Your task to perform on an android device: check battery use Image 0: 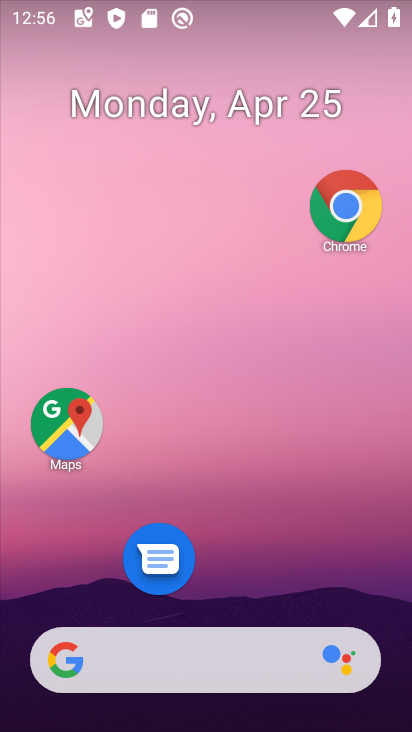
Step 0: drag from (253, 496) to (276, 93)
Your task to perform on an android device: check battery use Image 1: 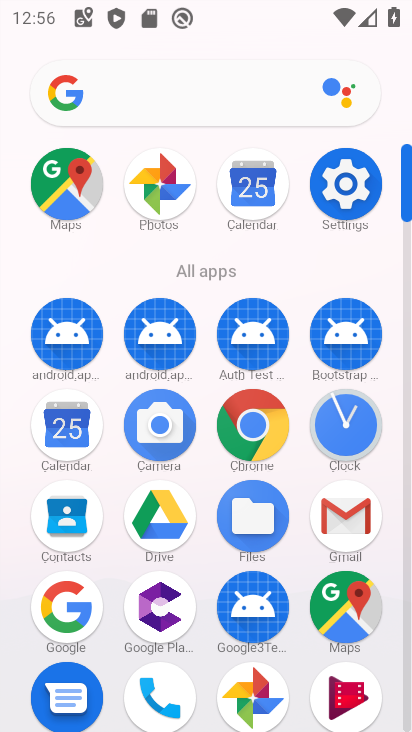
Step 1: click (348, 200)
Your task to perform on an android device: check battery use Image 2: 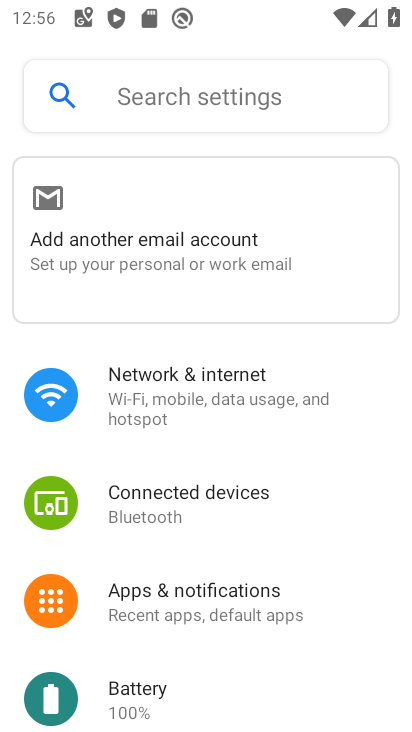
Step 2: click (154, 689)
Your task to perform on an android device: check battery use Image 3: 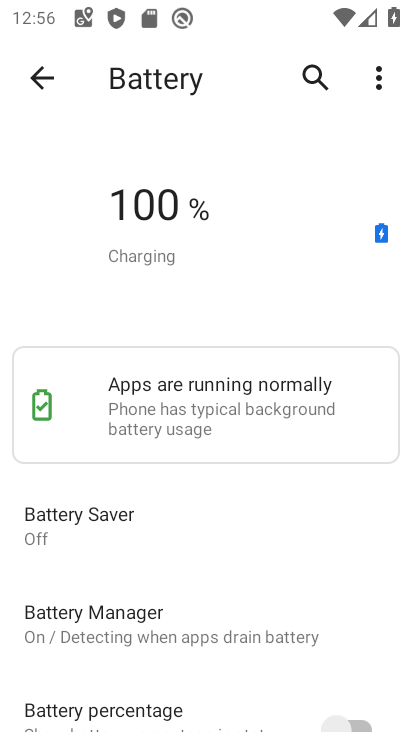
Step 3: click (387, 70)
Your task to perform on an android device: check battery use Image 4: 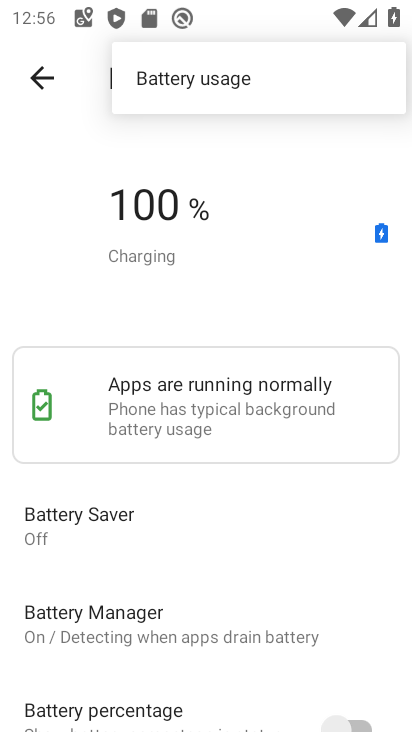
Step 4: click (273, 83)
Your task to perform on an android device: check battery use Image 5: 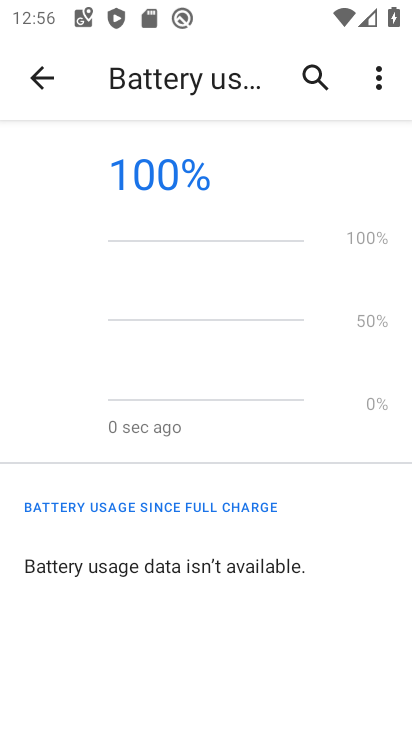
Step 5: task complete